Your task to perform on an android device: delete browsing data in the chrome app Image 0: 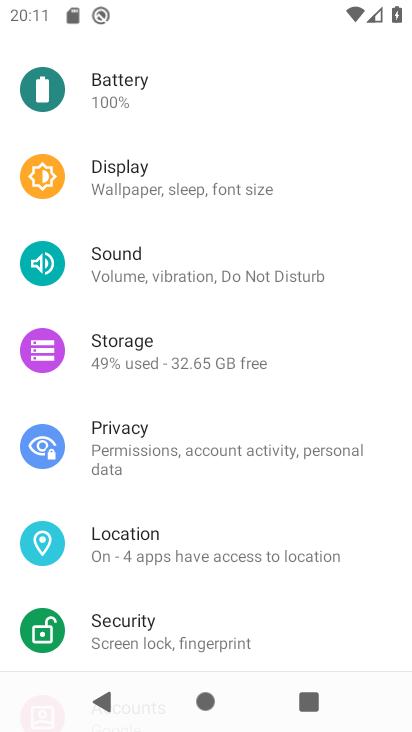
Step 0: press home button
Your task to perform on an android device: delete browsing data in the chrome app Image 1: 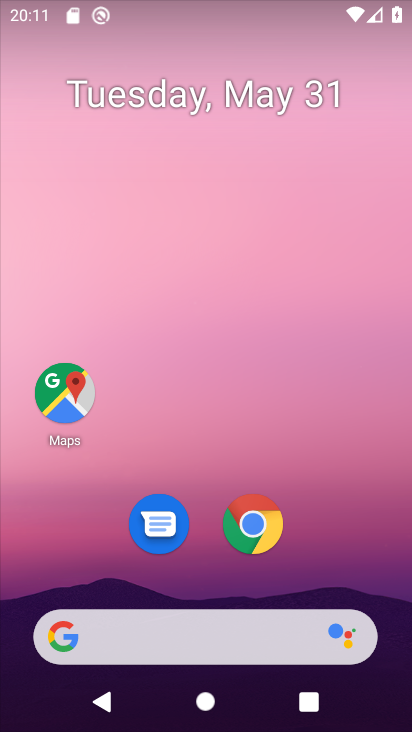
Step 1: click (249, 542)
Your task to perform on an android device: delete browsing data in the chrome app Image 2: 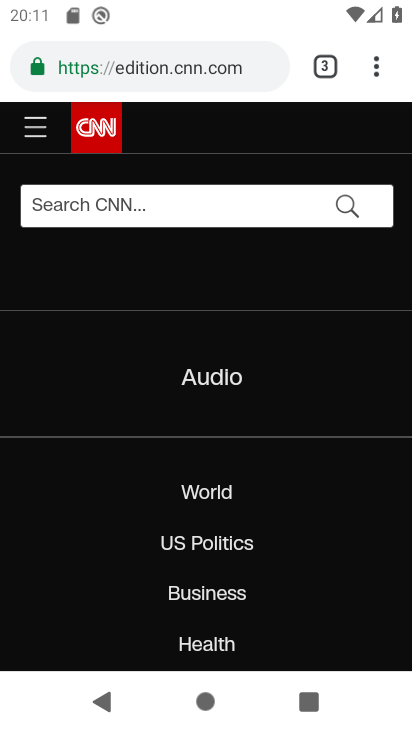
Step 2: click (378, 68)
Your task to perform on an android device: delete browsing data in the chrome app Image 3: 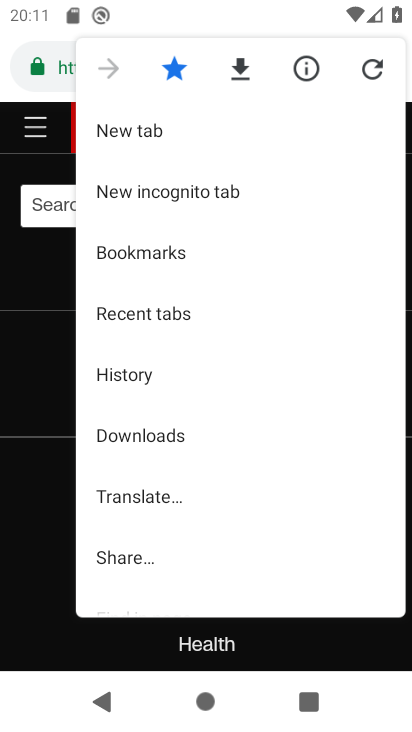
Step 3: click (133, 377)
Your task to perform on an android device: delete browsing data in the chrome app Image 4: 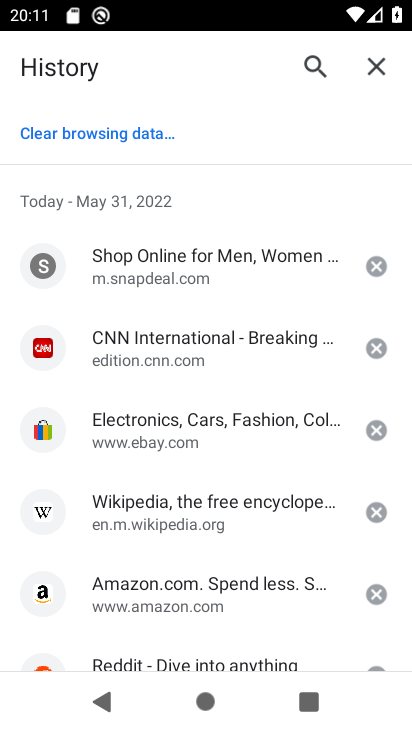
Step 4: click (129, 124)
Your task to perform on an android device: delete browsing data in the chrome app Image 5: 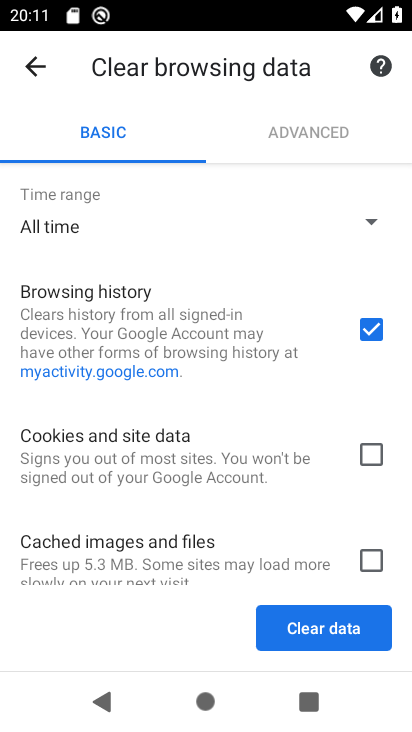
Step 5: click (376, 450)
Your task to perform on an android device: delete browsing data in the chrome app Image 6: 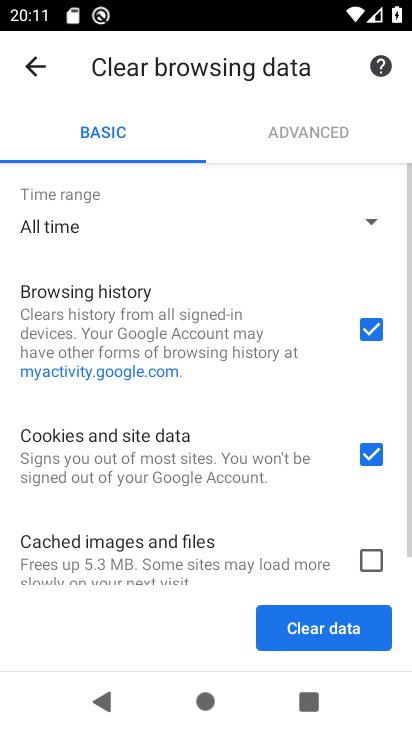
Step 6: click (378, 565)
Your task to perform on an android device: delete browsing data in the chrome app Image 7: 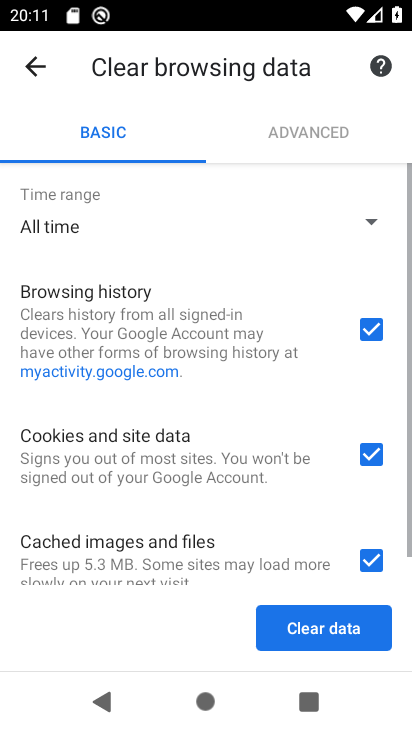
Step 7: click (358, 625)
Your task to perform on an android device: delete browsing data in the chrome app Image 8: 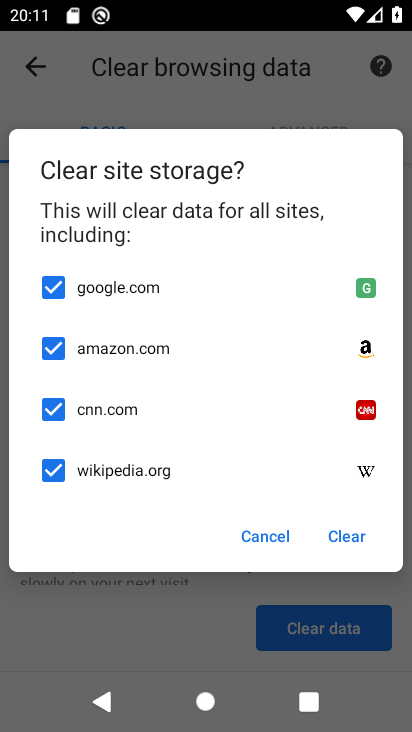
Step 8: click (341, 521)
Your task to perform on an android device: delete browsing data in the chrome app Image 9: 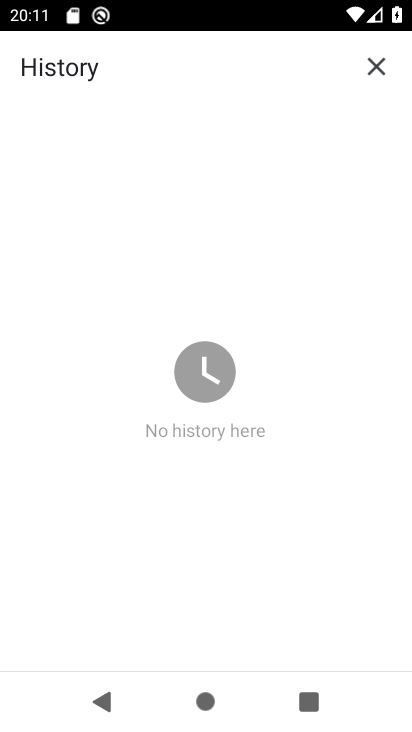
Step 9: task complete